Your task to perform on an android device: Find coffee shops on Maps Image 0: 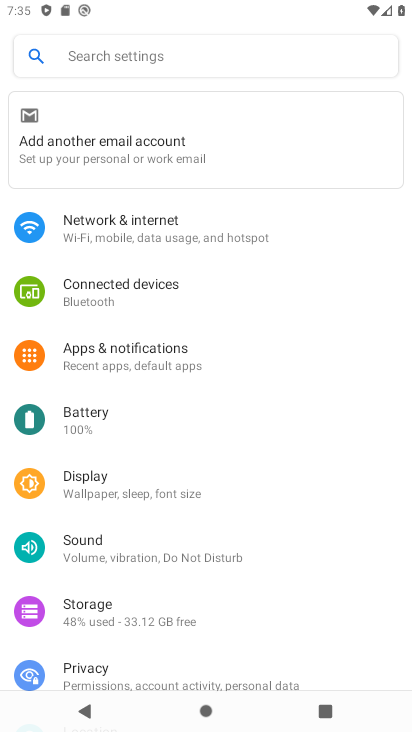
Step 0: press home button
Your task to perform on an android device: Find coffee shops on Maps Image 1: 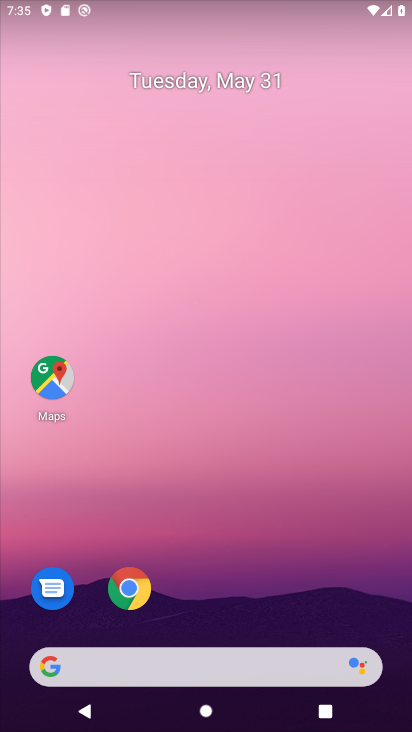
Step 1: click (55, 387)
Your task to perform on an android device: Find coffee shops on Maps Image 2: 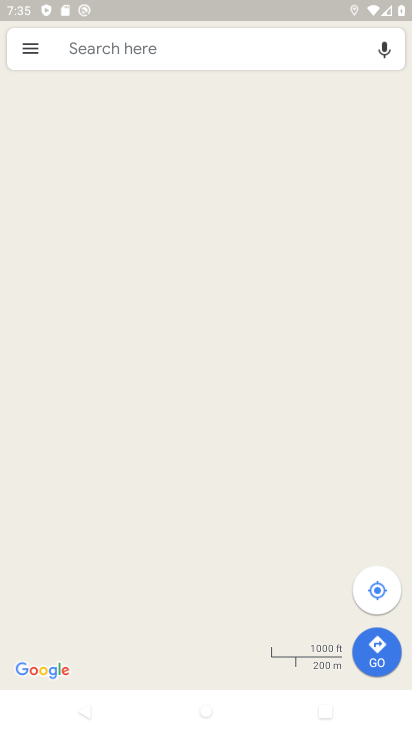
Step 2: click (228, 30)
Your task to perform on an android device: Find coffee shops on Maps Image 3: 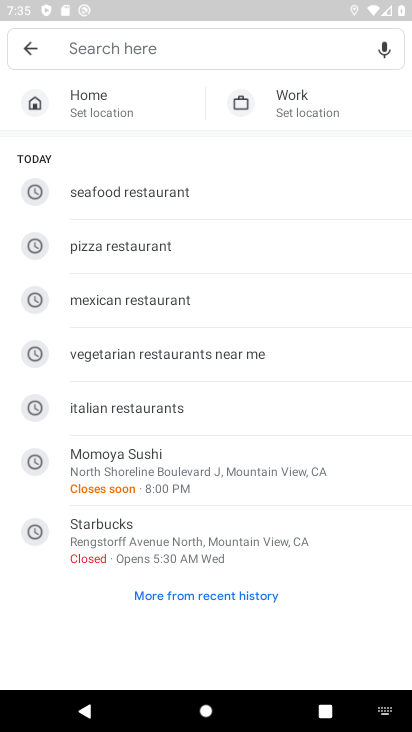
Step 3: type "coffee shops"
Your task to perform on an android device: Find coffee shops on Maps Image 4: 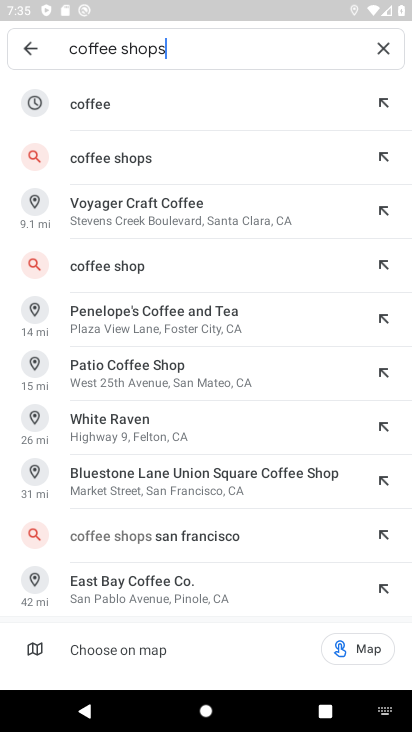
Step 4: click (226, 154)
Your task to perform on an android device: Find coffee shops on Maps Image 5: 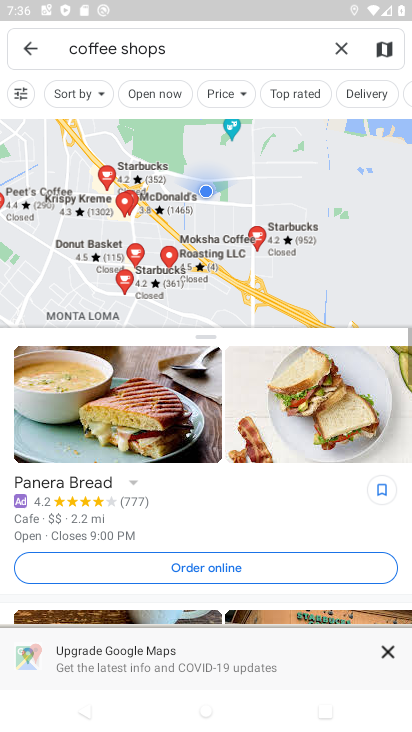
Step 5: task complete